Your task to perform on an android device: turn off picture-in-picture Image 0: 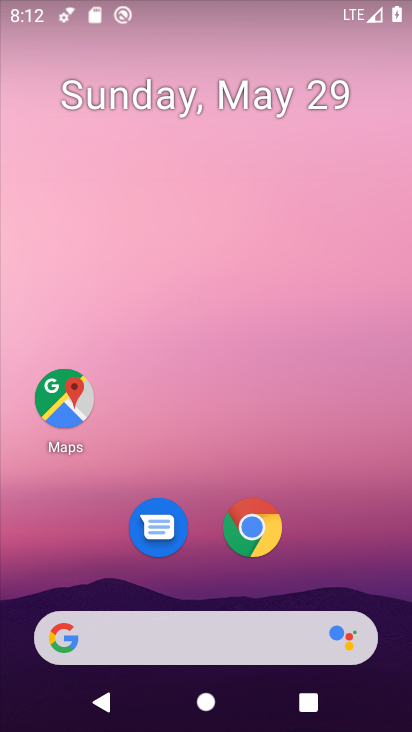
Step 0: press home button
Your task to perform on an android device: turn off picture-in-picture Image 1: 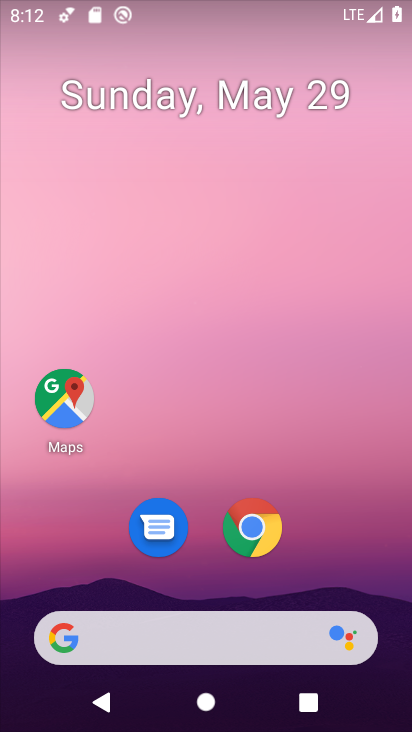
Step 1: click (251, 532)
Your task to perform on an android device: turn off picture-in-picture Image 2: 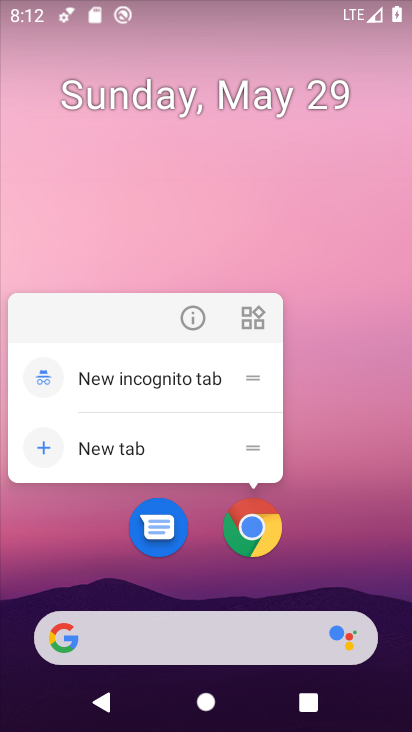
Step 2: click (192, 315)
Your task to perform on an android device: turn off picture-in-picture Image 3: 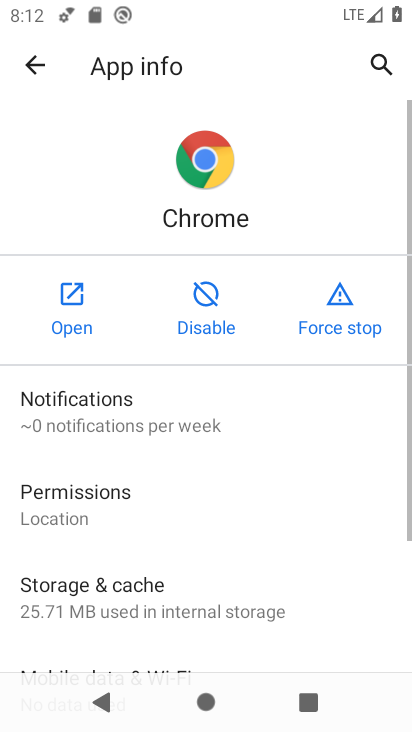
Step 3: click (192, 315)
Your task to perform on an android device: turn off picture-in-picture Image 4: 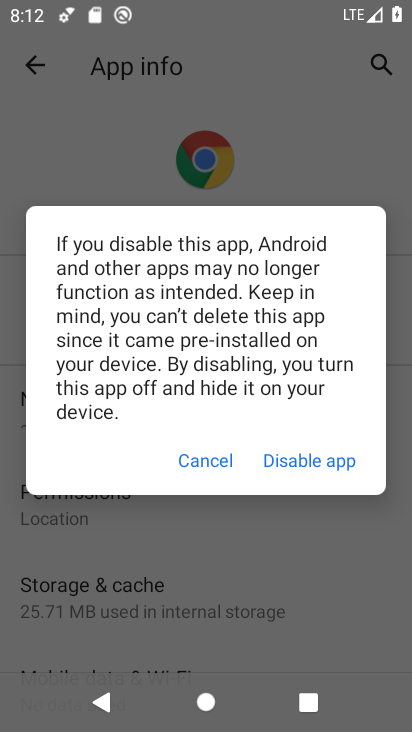
Step 4: click (201, 462)
Your task to perform on an android device: turn off picture-in-picture Image 5: 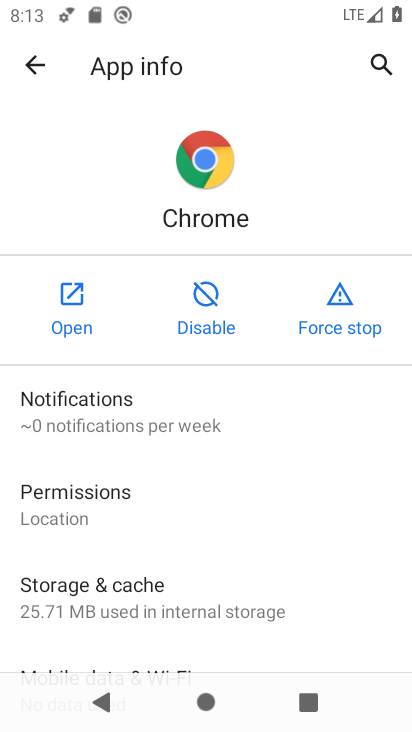
Step 5: drag from (207, 590) to (187, 304)
Your task to perform on an android device: turn off picture-in-picture Image 6: 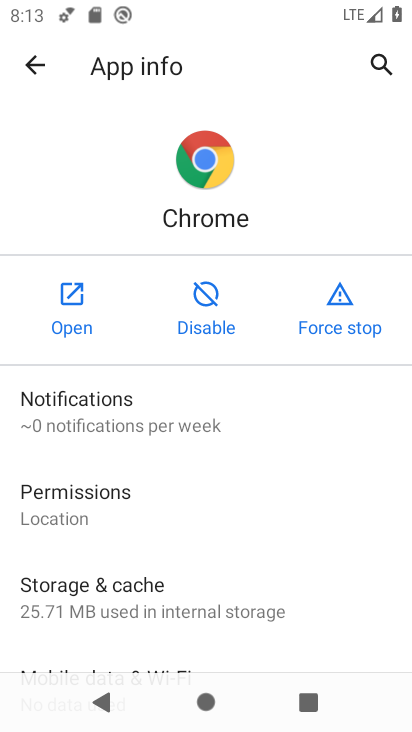
Step 6: drag from (188, 630) to (170, 143)
Your task to perform on an android device: turn off picture-in-picture Image 7: 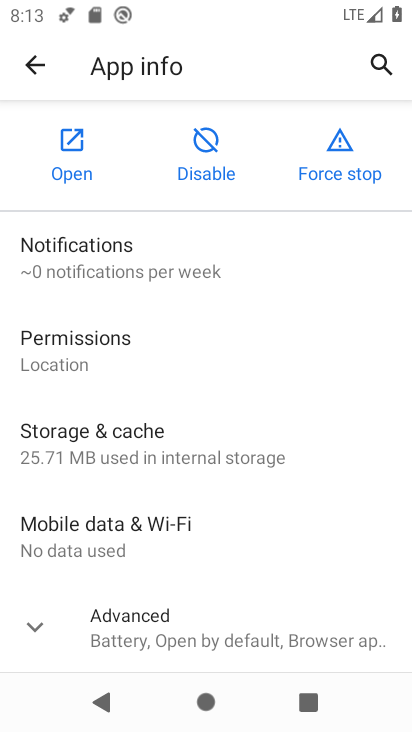
Step 7: drag from (183, 627) to (195, 200)
Your task to perform on an android device: turn off picture-in-picture Image 8: 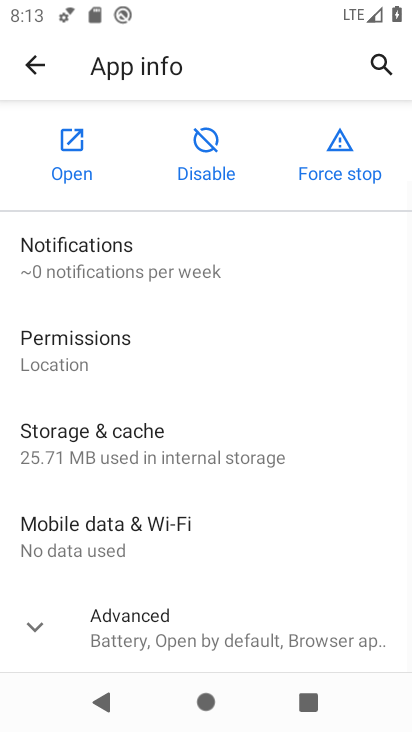
Step 8: click (65, 634)
Your task to perform on an android device: turn off picture-in-picture Image 9: 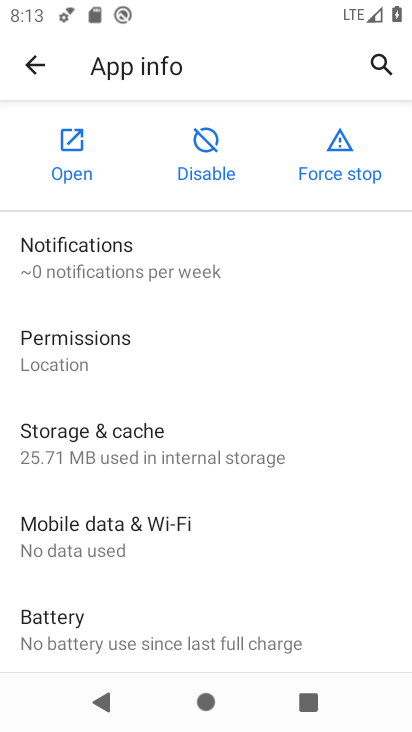
Step 9: drag from (146, 615) to (178, 80)
Your task to perform on an android device: turn off picture-in-picture Image 10: 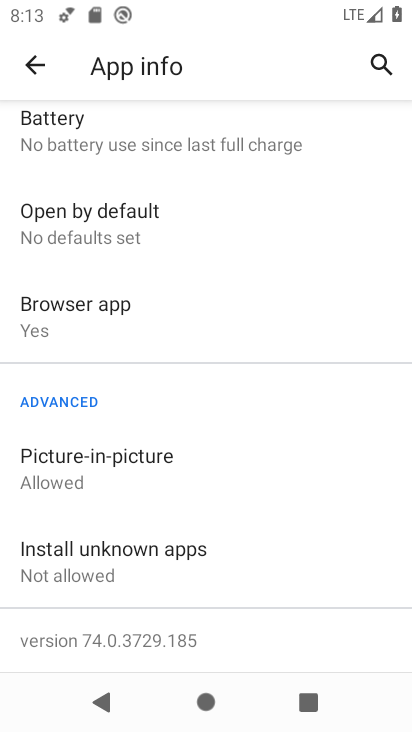
Step 10: click (109, 455)
Your task to perform on an android device: turn off picture-in-picture Image 11: 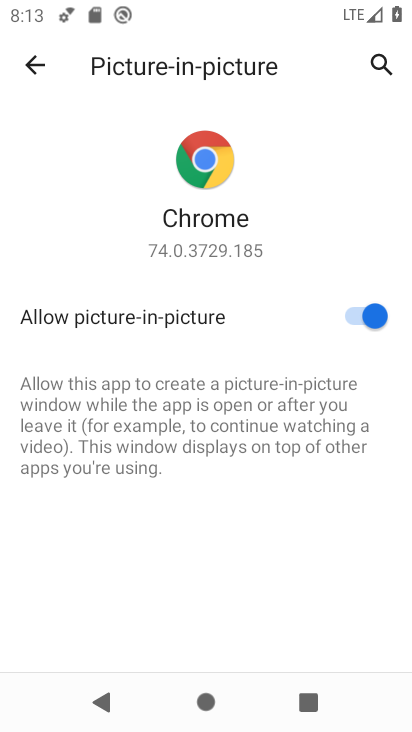
Step 11: click (355, 308)
Your task to perform on an android device: turn off picture-in-picture Image 12: 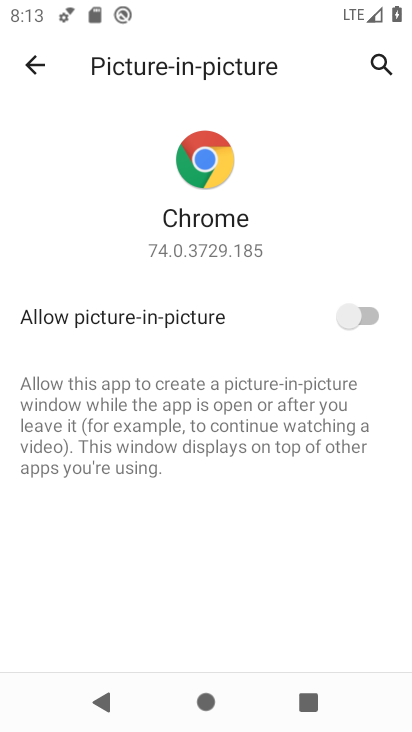
Step 12: task complete